Your task to perform on an android device: Open Google Chrome Image 0: 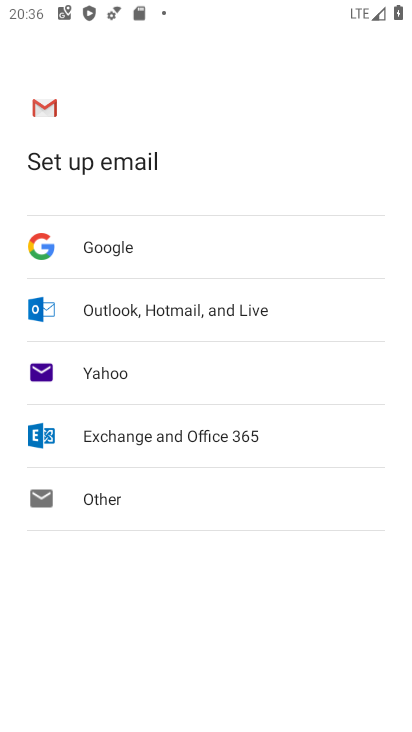
Step 0: press back button
Your task to perform on an android device: Open Google Chrome Image 1: 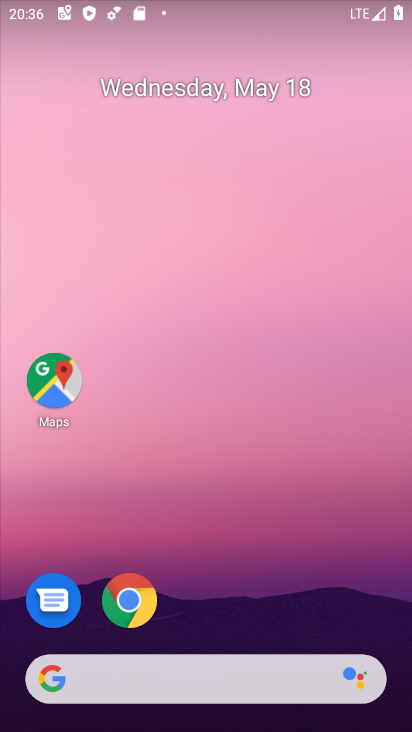
Step 1: click (129, 604)
Your task to perform on an android device: Open Google Chrome Image 2: 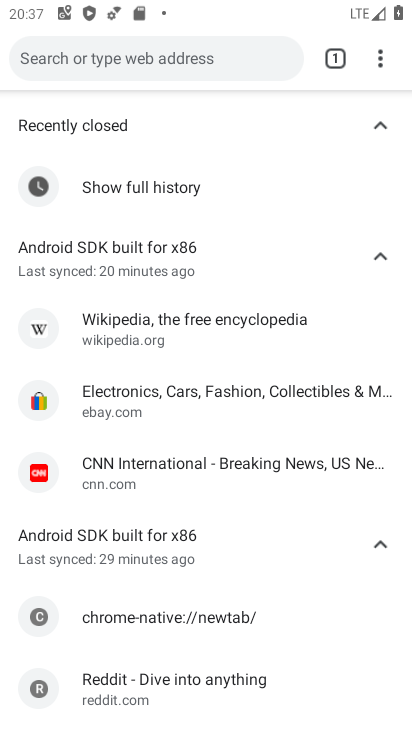
Step 2: task complete